Your task to perform on an android device: Do I have any events tomorrow? Image 0: 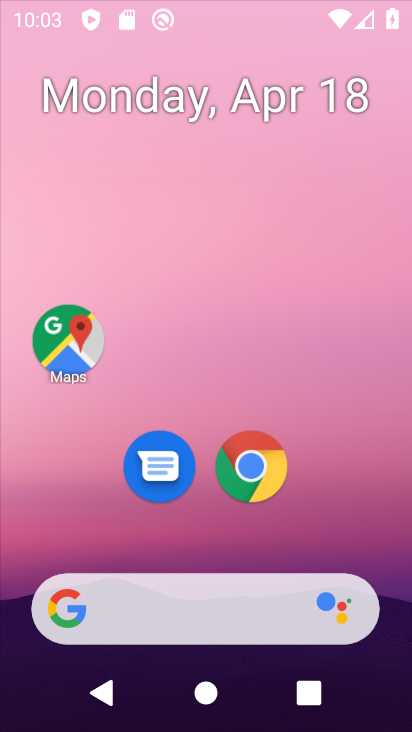
Step 0: click (29, 346)
Your task to perform on an android device: Do I have any events tomorrow? Image 1: 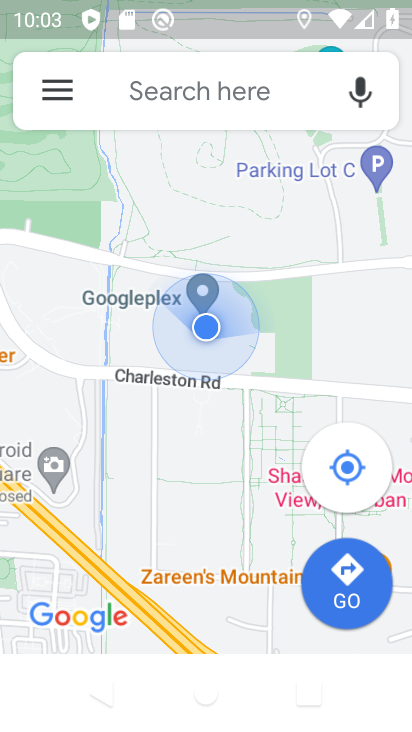
Step 1: press home button
Your task to perform on an android device: Do I have any events tomorrow? Image 2: 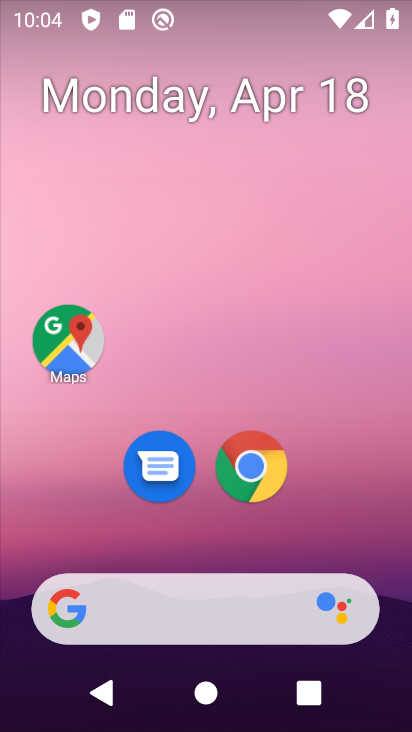
Step 2: drag from (219, 521) to (241, 151)
Your task to perform on an android device: Do I have any events tomorrow? Image 3: 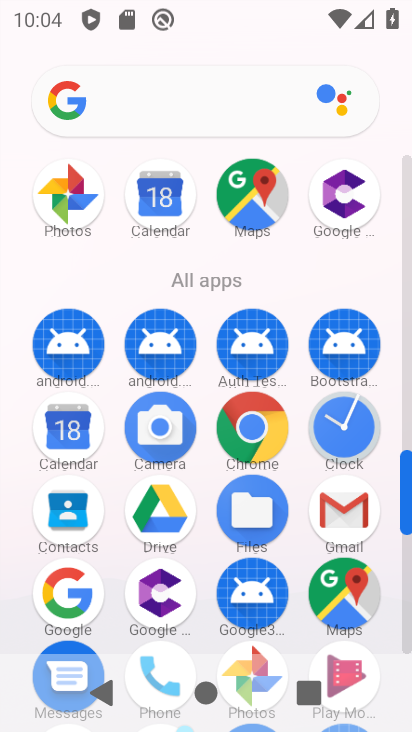
Step 3: click (70, 435)
Your task to perform on an android device: Do I have any events tomorrow? Image 4: 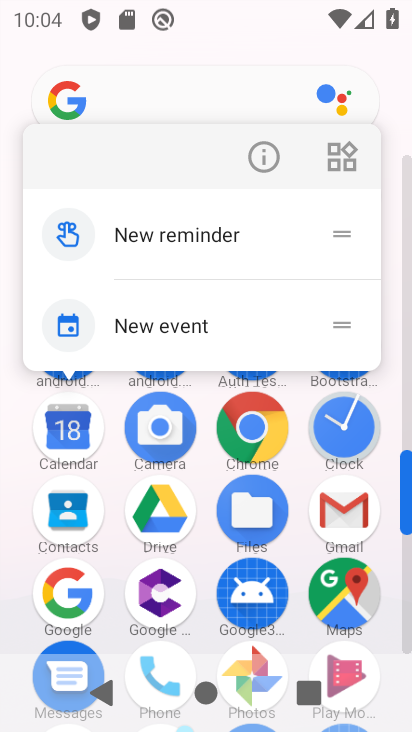
Step 4: click (69, 435)
Your task to perform on an android device: Do I have any events tomorrow? Image 5: 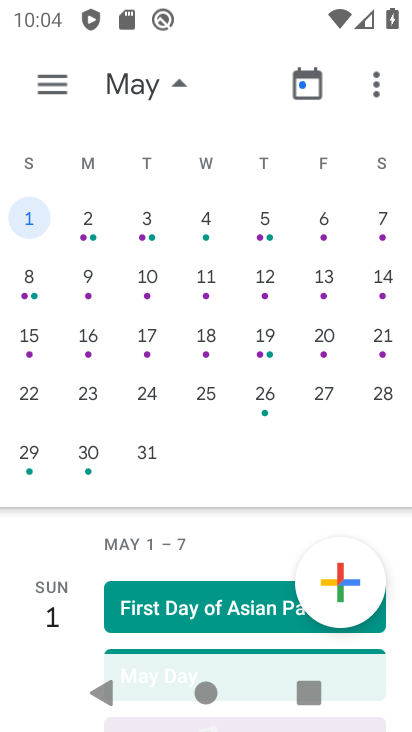
Step 5: drag from (132, 209) to (409, 297)
Your task to perform on an android device: Do I have any events tomorrow? Image 6: 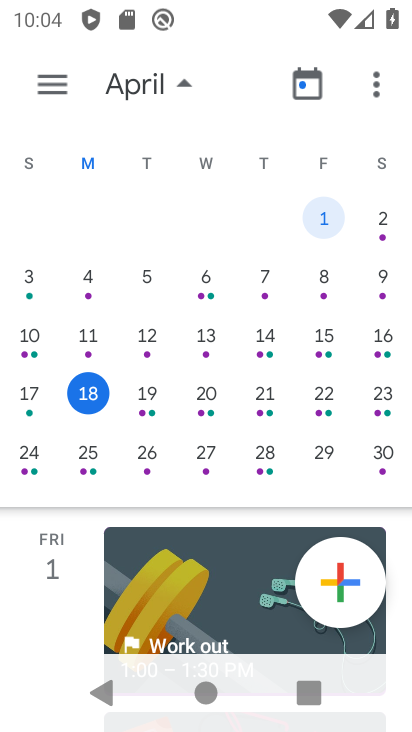
Step 6: click (147, 402)
Your task to perform on an android device: Do I have any events tomorrow? Image 7: 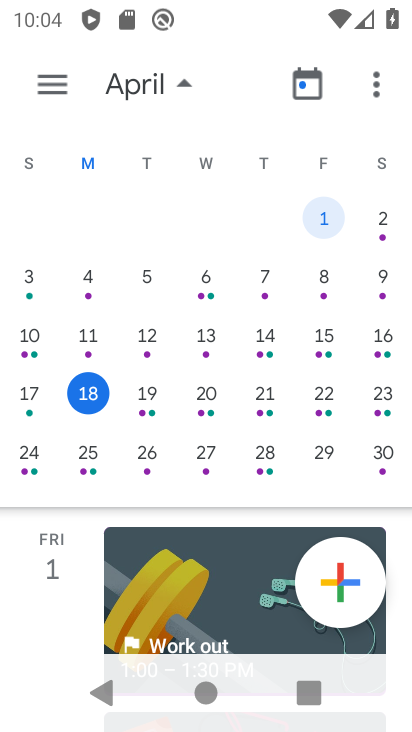
Step 7: click (140, 408)
Your task to perform on an android device: Do I have any events tomorrow? Image 8: 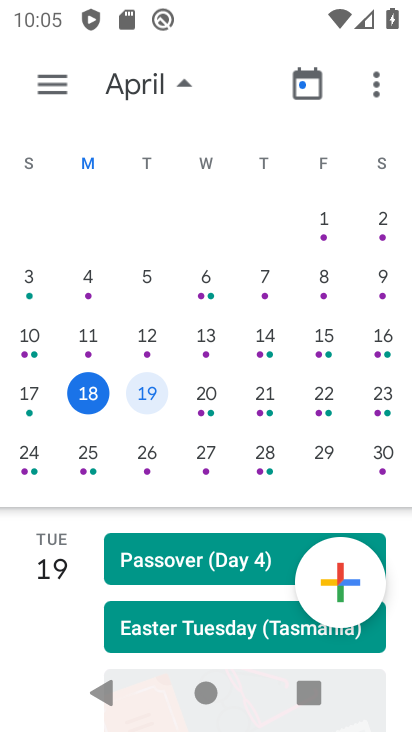
Step 8: task complete